Your task to perform on an android device: toggle translation in the chrome app Image 0: 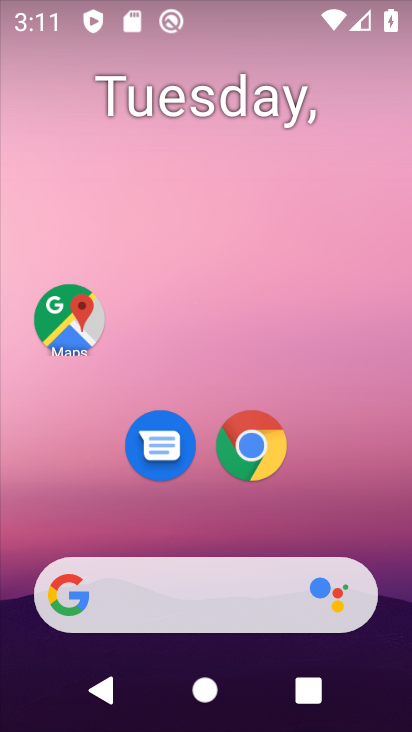
Step 0: drag from (192, 520) to (314, 1)
Your task to perform on an android device: toggle translation in the chrome app Image 1: 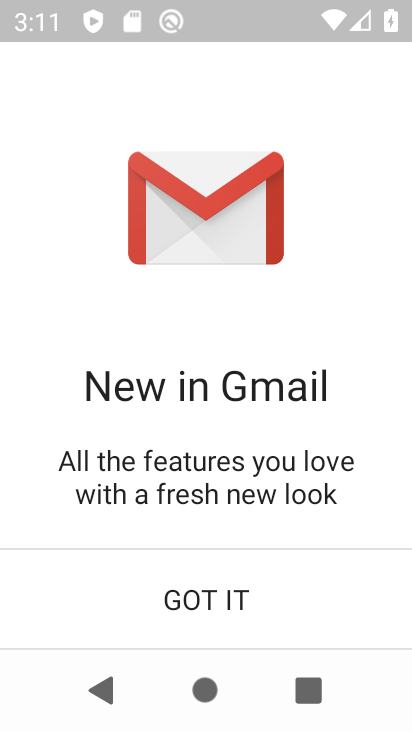
Step 1: click (191, 593)
Your task to perform on an android device: toggle translation in the chrome app Image 2: 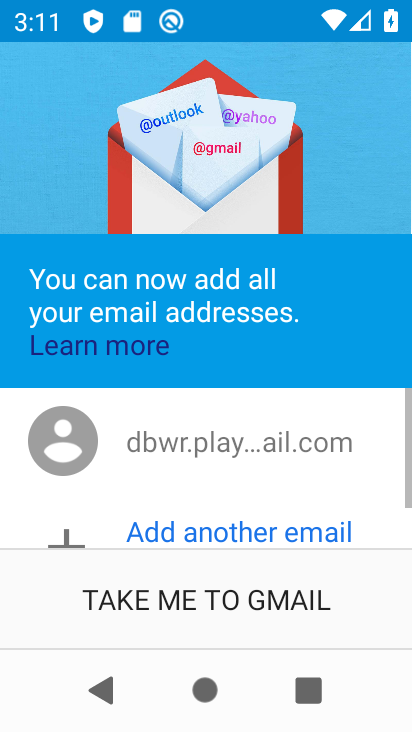
Step 2: press back button
Your task to perform on an android device: toggle translation in the chrome app Image 3: 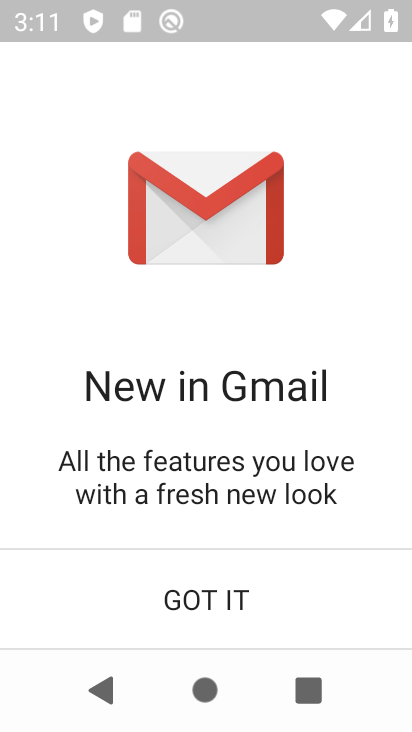
Step 3: press back button
Your task to perform on an android device: toggle translation in the chrome app Image 4: 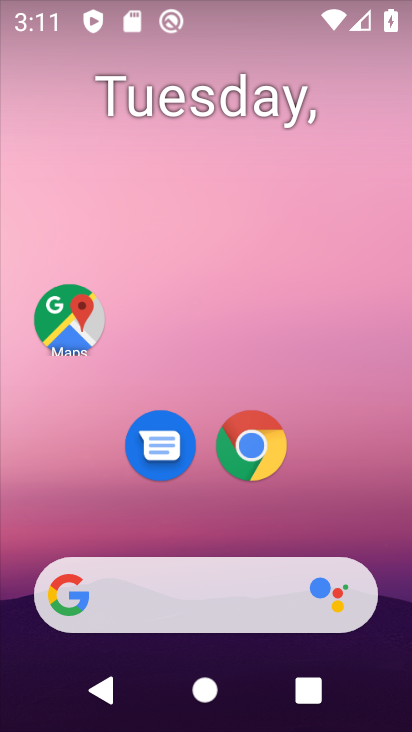
Step 4: drag from (200, 482) to (265, 92)
Your task to perform on an android device: toggle translation in the chrome app Image 5: 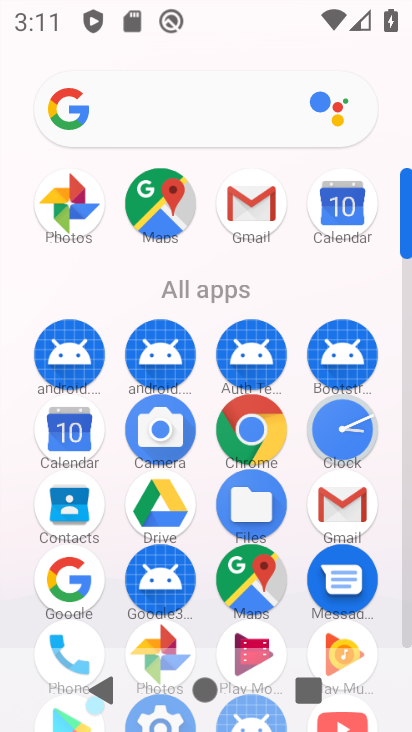
Step 5: click (247, 430)
Your task to perform on an android device: toggle translation in the chrome app Image 6: 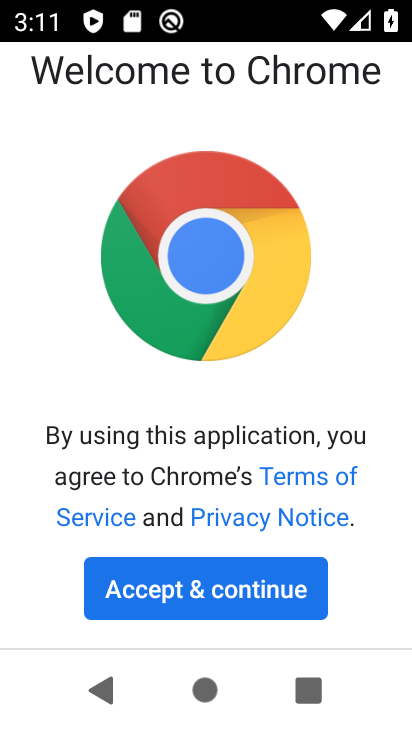
Step 6: click (215, 586)
Your task to perform on an android device: toggle translation in the chrome app Image 7: 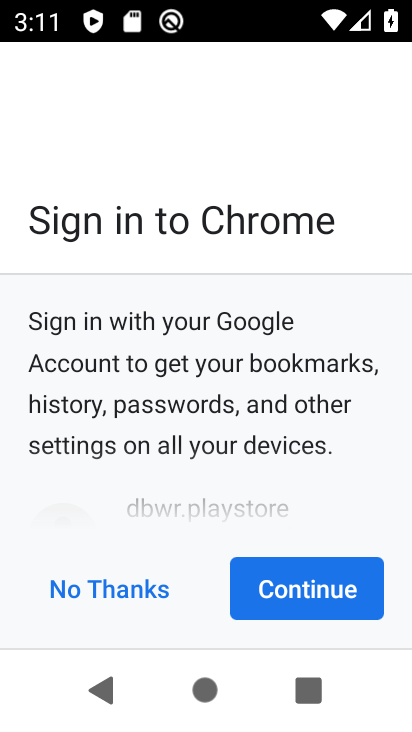
Step 7: click (262, 582)
Your task to perform on an android device: toggle translation in the chrome app Image 8: 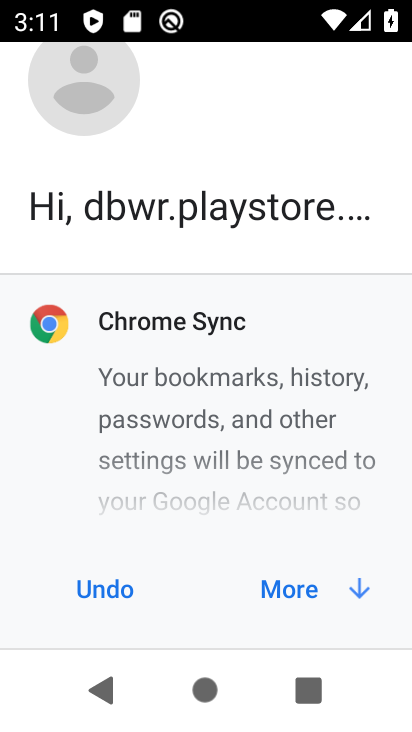
Step 8: click (285, 584)
Your task to perform on an android device: toggle translation in the chrome app Image 9: 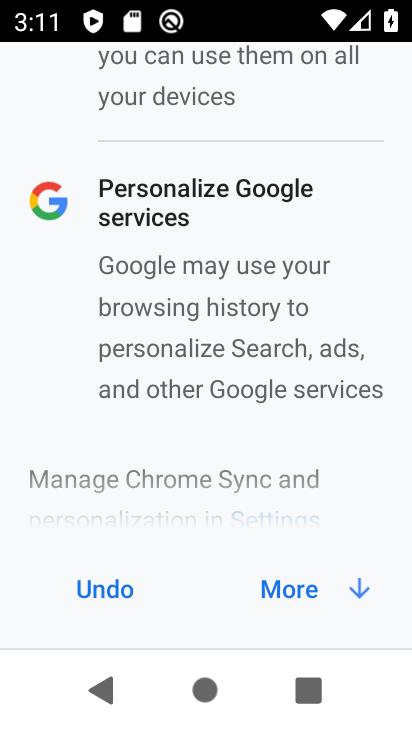
Step 9: click (281, 578)
Your task to perform on an android device: toggle translation in the chrome app Image 10: 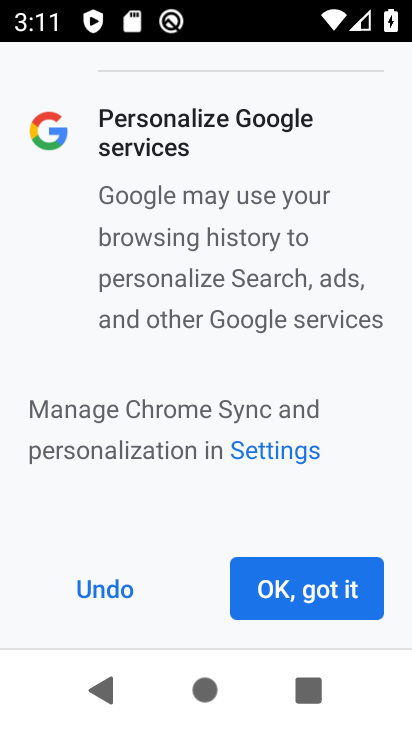
Step 10: click (287, 592)
Your task to perform on an android device: toggle translation in the chrome app Image 11: 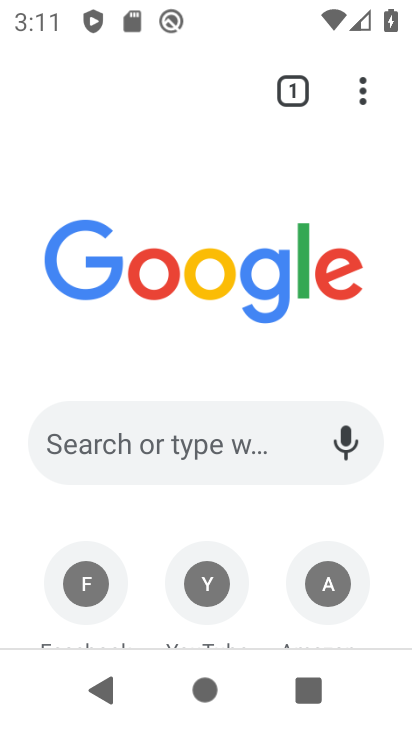
Step 11: drag from (364, 93) to (107, 478)
Your task to perform on an android device: toggle translation in the chrome app Image 12: 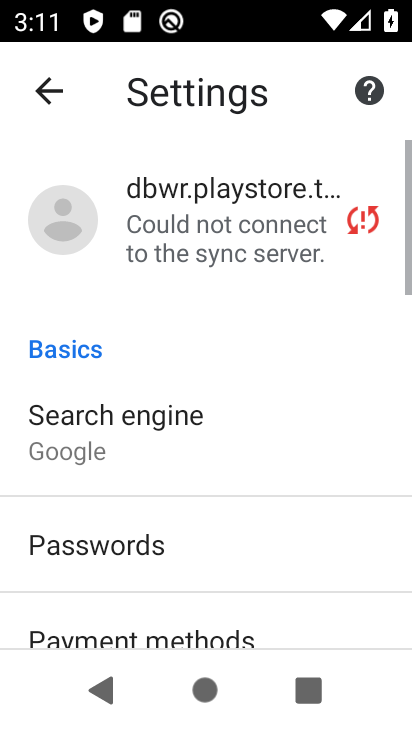
Step 12: drag from (100, 617) to (310, 100)
Your task to perform on an android device: toggle translation in the chrome app Image 13: 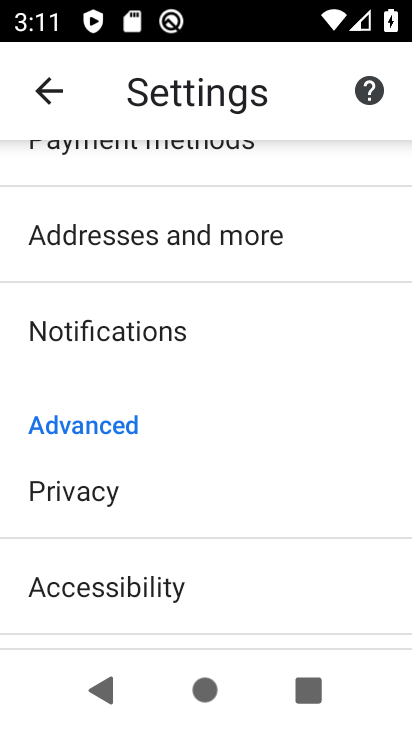
Step 13: drag from (117, 578) to (230, 251)
Your task to perform on an android device: toggle translation in the chrome app Image 14: 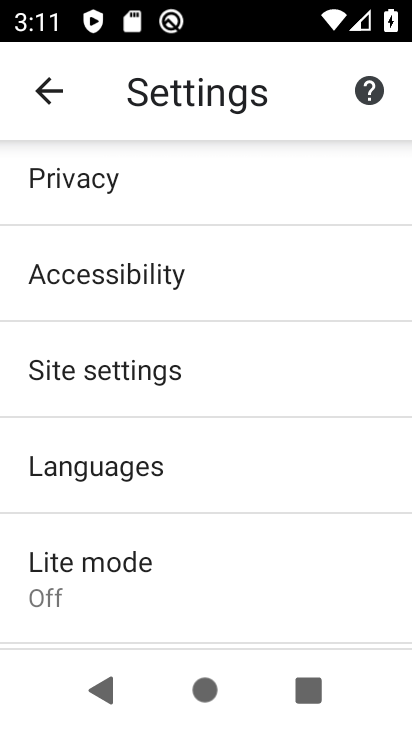
Step 14: click (71, 462)
Your task to perform on an android device: toggle translation in the chrome app Image 15: 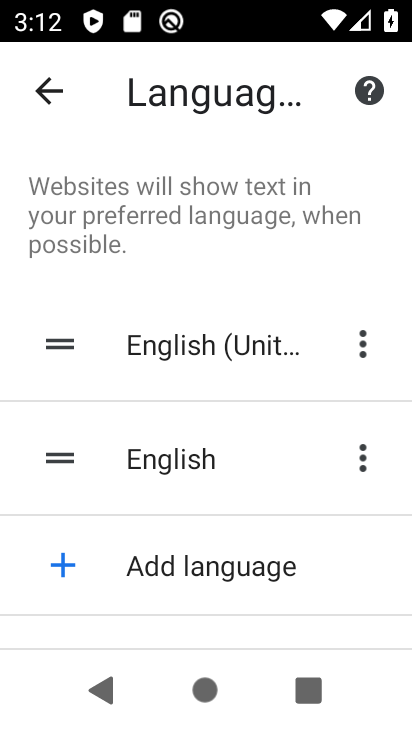
Step 15: drag from (165, 580) to (272, 233)
Your task to perform on an android device: toggle translation in the chrome app Image 16: 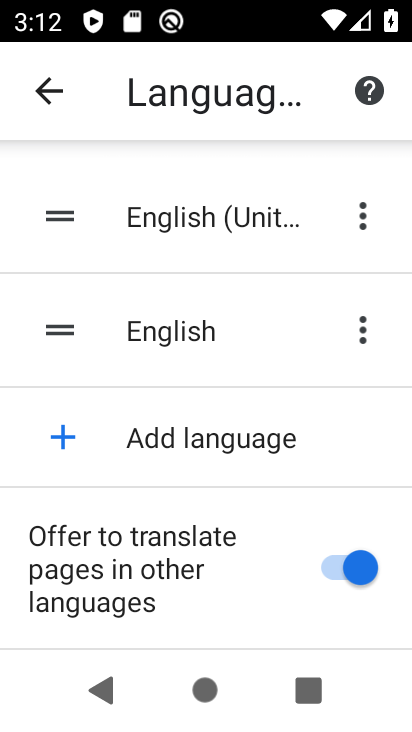
Step 16: click (362, 573)
Your task to perform on an android device: toggle translation in the chrome app Image 17: 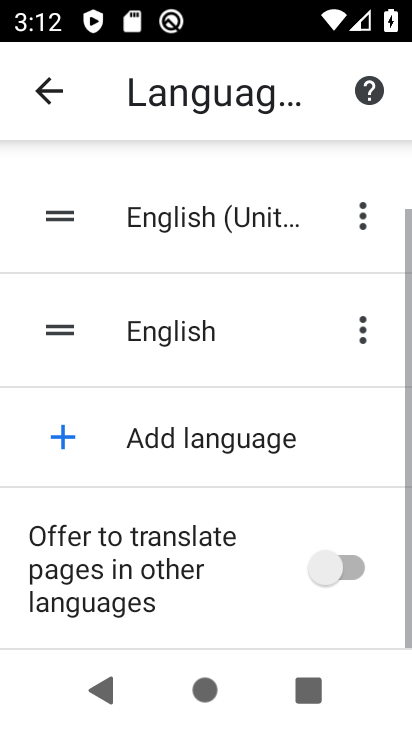
Step 17: task complete